Your task to perform on an android device: turn on javascript in the chrome app Image 0: 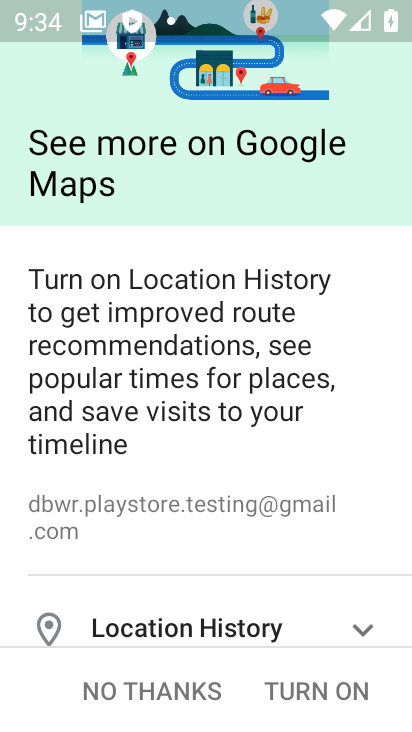
Step 0: press back button
Your task to perform on an android device: turn on javascript in the chrome app Image 1: 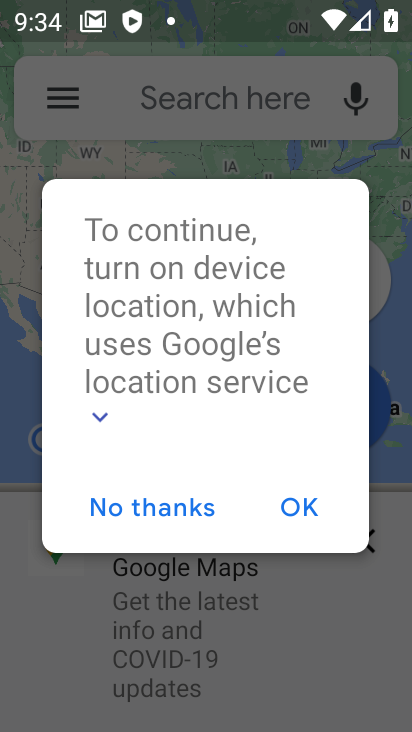
Step 1: click (306, 511)
Your task to perform on an android device: turn on javascript in the chrome app Image 2: 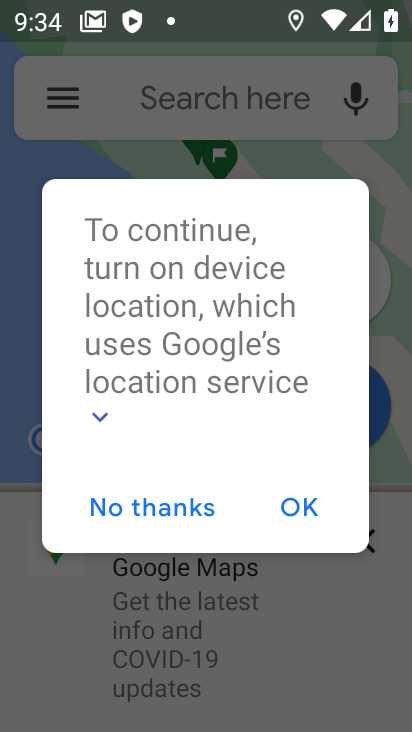
Step 2: click (310, 500)
Your task to perform on an android device: turn on javascript in the chrome app Image 3: 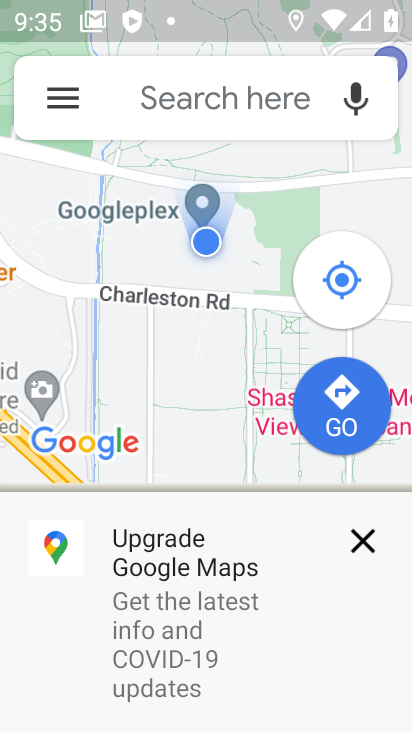
Step 3: click (69, 93)
Your task to perform on an android device: turn on javascript in the chrome app Image 4: 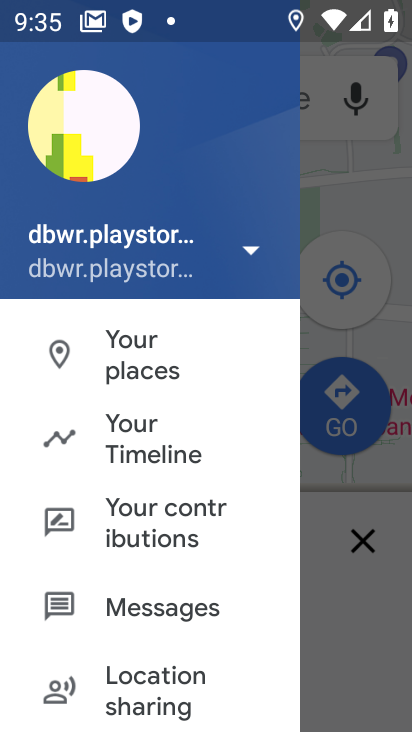
Step 4: press home button
Your task to perform on an android device: turn on javascript in the chrome app Image 5: 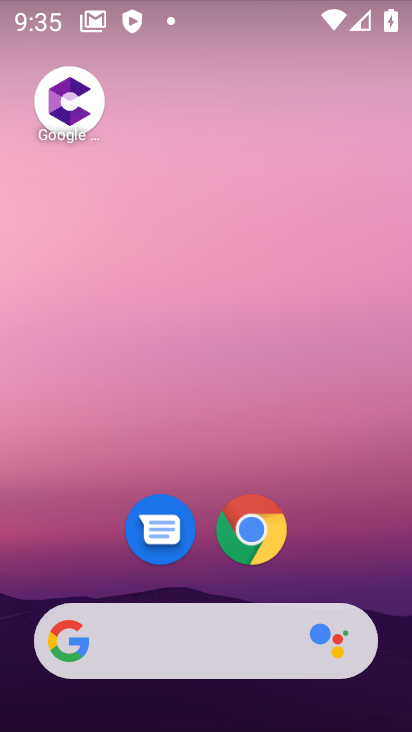
Step 5: click (241, 510)
Your task to perform on an android device: turn on javascript in the chrome app Image 6: 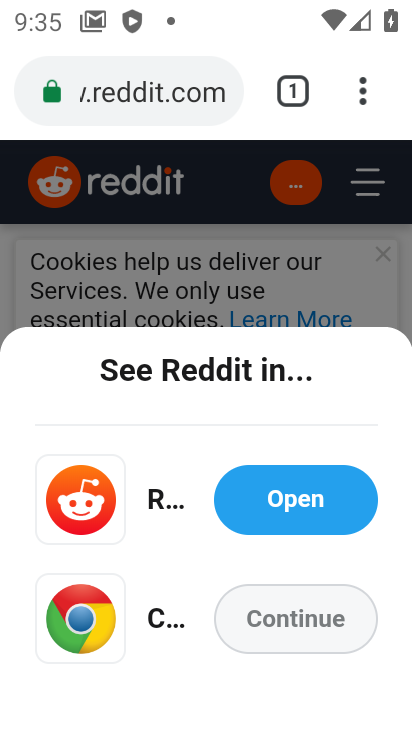
Step 6: click (360, 88)
Your task to perform on an android device: turn on javascript in the chrome app Image 7: 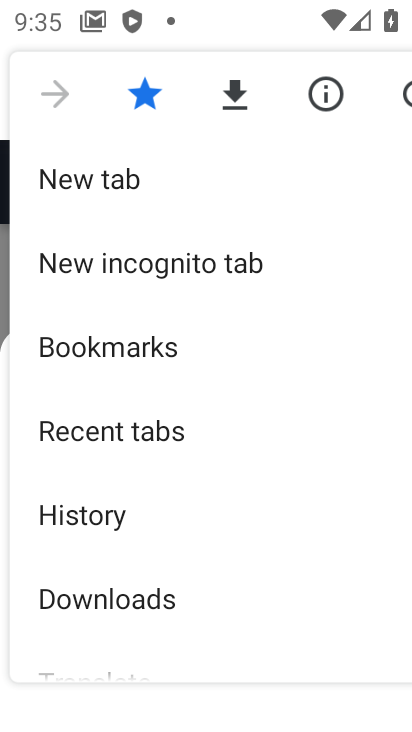
Step 7: drag from (254, 580) to (284, 339)
Your task to perform on an android device: turn on javascript in the chrome app Image 8: 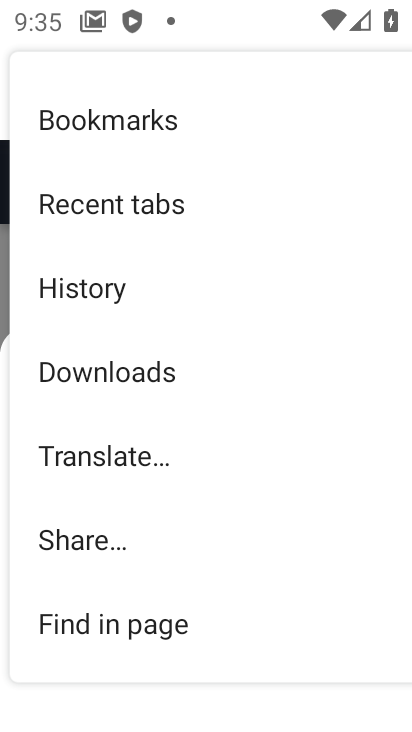
Step 8: drag from (259, 647) to (308, 272)
Your task to perform on an android device: turn on javascript in the chrome app Image 9: 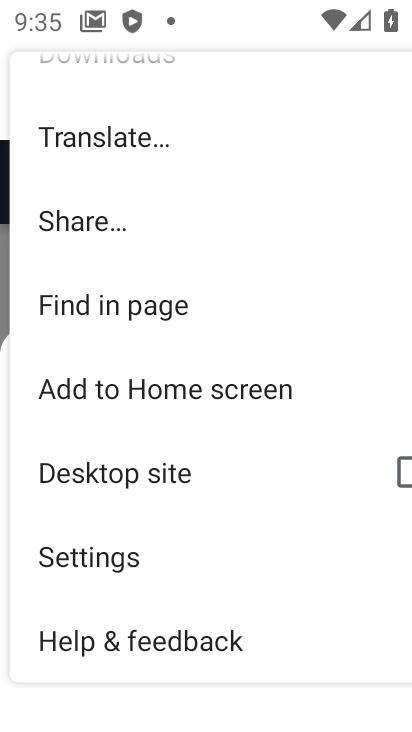
Step 9: drag from (336, 378) to (335, 331)
Your task to perform on an android device: turn on javascript in the chrome app Image 10: 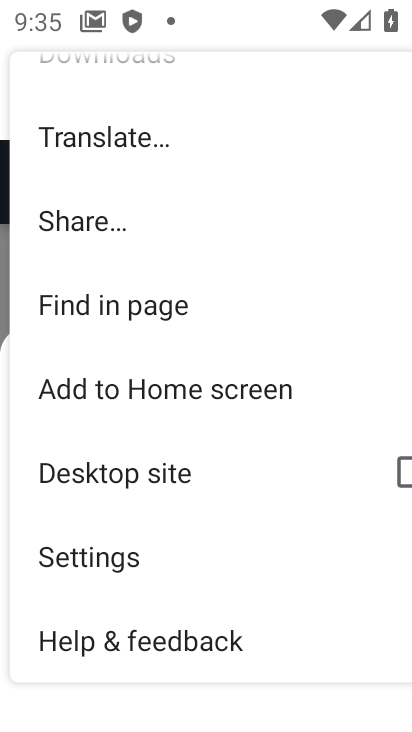
Step 10: drag from (283, 603) to (343, 213)
Your task to perform on an android device: turn on javascript in the chrome app Image 11: 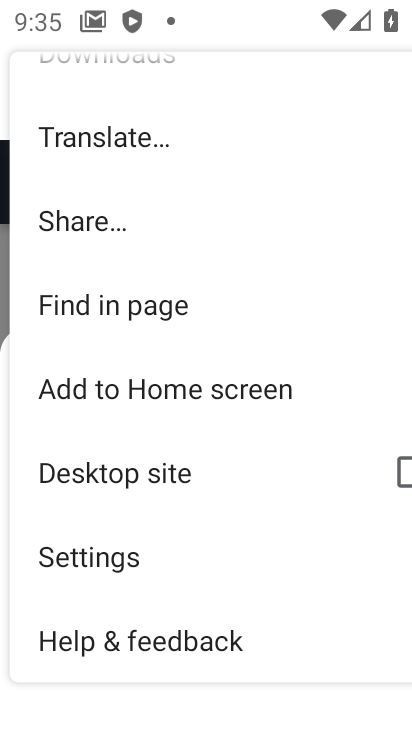
Step 11: click (72, 553)
Your task to perform on an android device: turn on javascript in the chrome app Image 12: 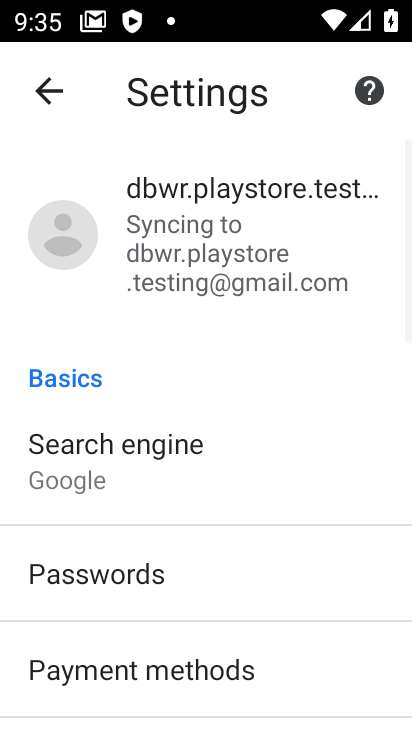
Step 12: drag from (258, 698) to (268, 309)
Your task to perform on an android device: turn on javascript in the chrome app Image 13: 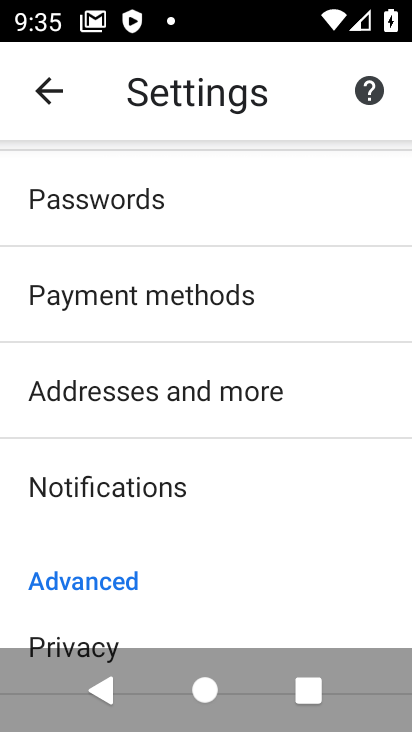
Step 13: drag from (279, 638) to (301, 333)
Your task to perform on an android device: turn on javascript in the chrome app Image 14: 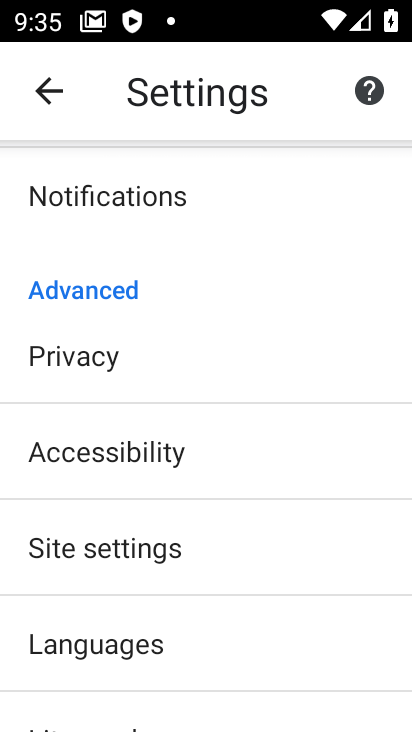
Step 14: drag from (228, 616) to (233, 373)
Your task to perform on an android device: turn on javascript in the chrome app Image 15: 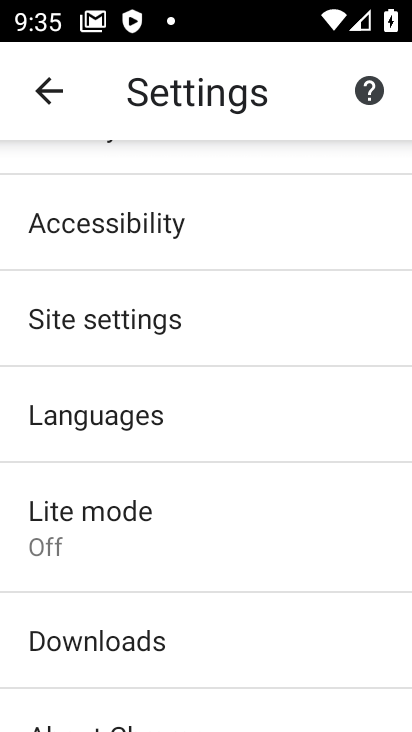
Step 15: click (285, 323)
Your task to perform on an android device: turn on javascript in the chrome app Image 16: 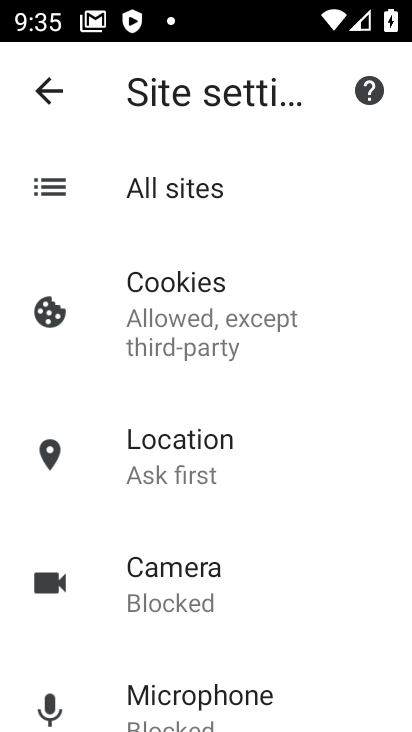
Step 16: drag from (290, 671) to (310, 305)
Your task to perform on an android device: turn on javascript in the chrome app Image 17: 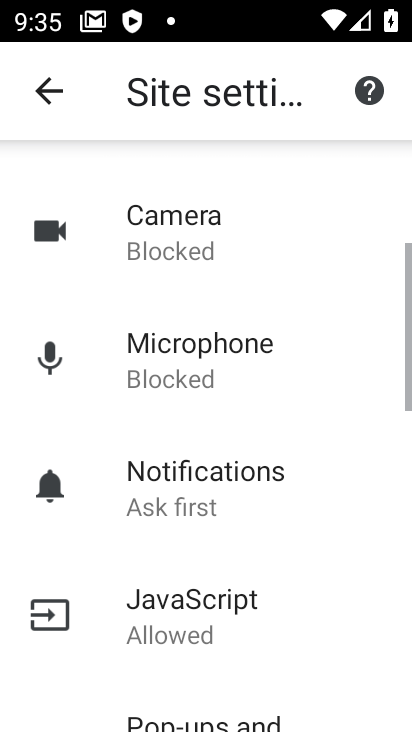
Step 17: drag from (291, 687) to (308, 408)
Your task to perform on an android device: turn on javascript in the chrome app Image 18: 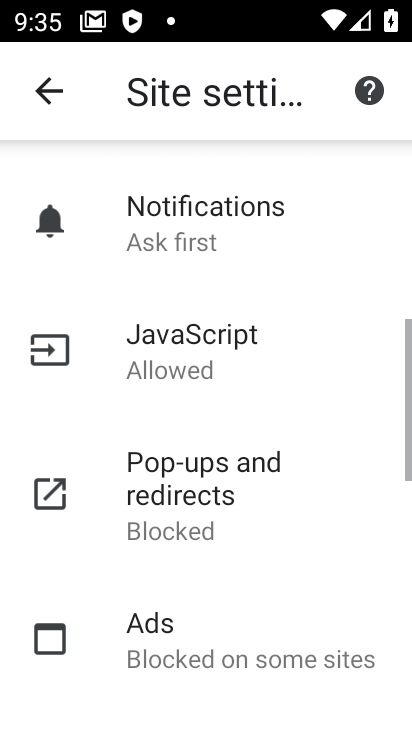
Step 18: click (149, 341)
Your task to perform on an android device: turn on javascript in the chrome app Image 19: 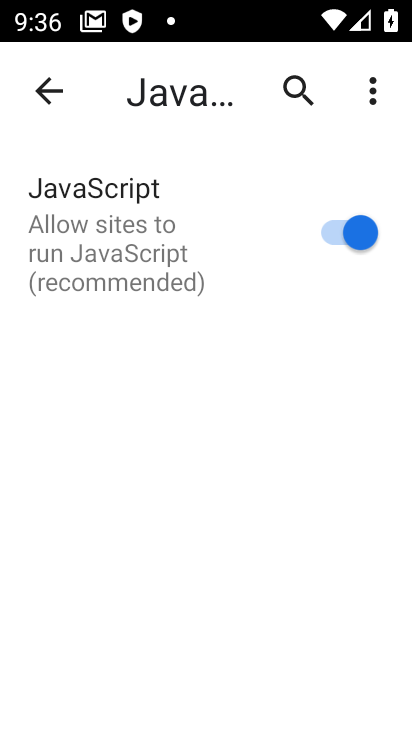
Step 19: task complete